Your task to perform on an android device: turn off sleep mode Image 0: 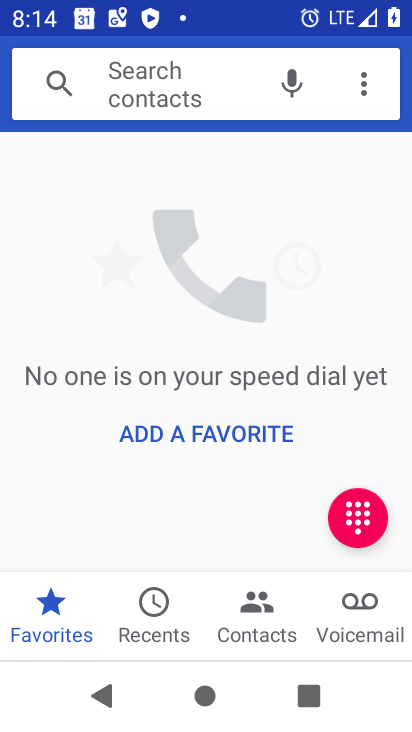
Step 0: press home button
Your task to perform on an android device: turn off sleep mode Image 1: 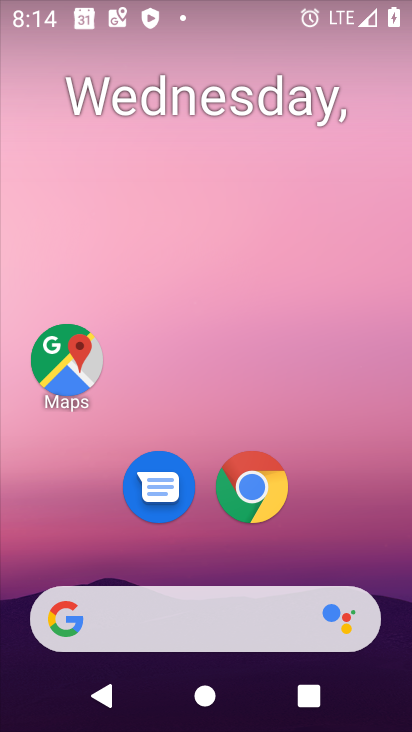
Step 1: drag from (354, 572) to (312, 4)
Your task to perform on an android device: turn off sleep mode Image 2: 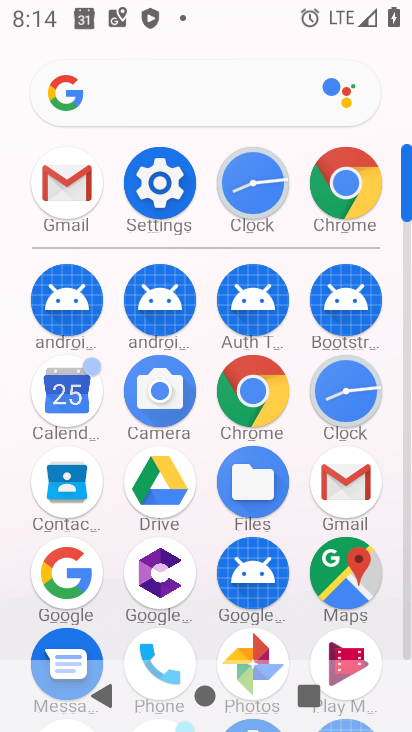
Step 2: click (154, 184)
Your task to perform on an android device: turn off sleep mode Image 3: 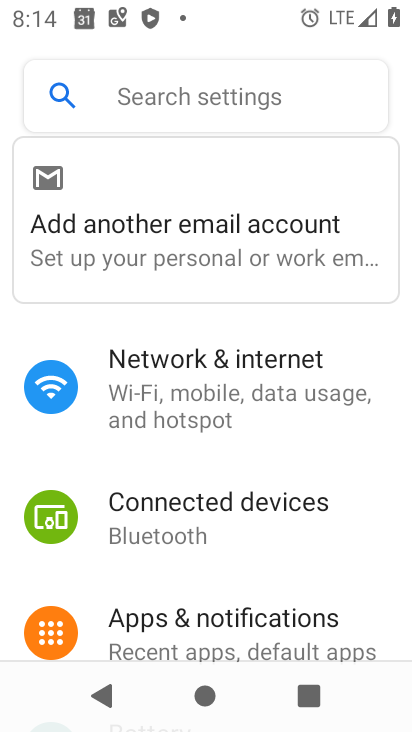
Step 3: drag from (344, 571) to (340, 98)
Your task to perform on an android device: turn off sleep mode Image 4: 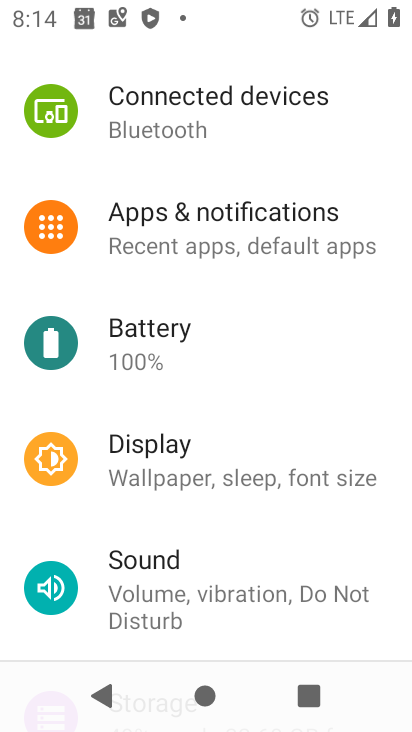
Step 4: click (148, 454)
Your task to perform on an android device: turn off sleep mode Image 5: 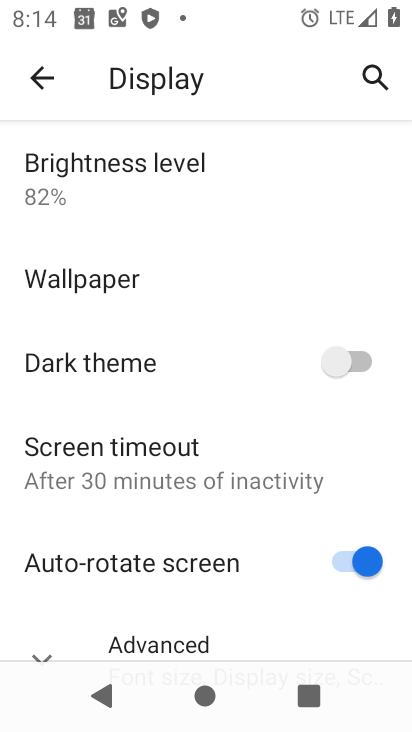
Step 5: drag from (146, 505) to (157, 231)
Your task to perform on an android device: turn off sleep mode Image 6: 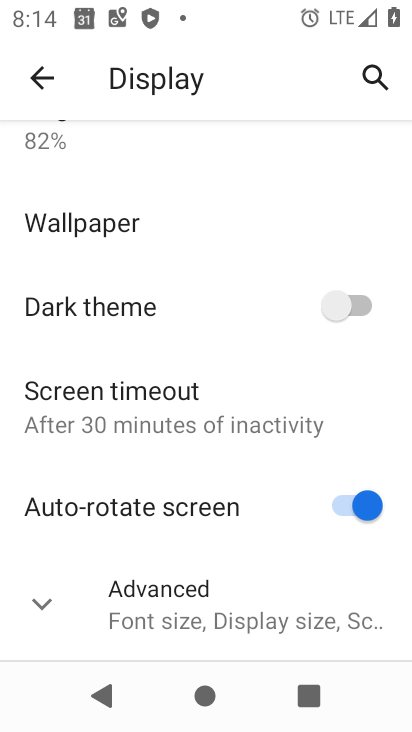
Step 6: click (35, 612)
Your task to perform on an android device: turn off sleep mode Image 7: 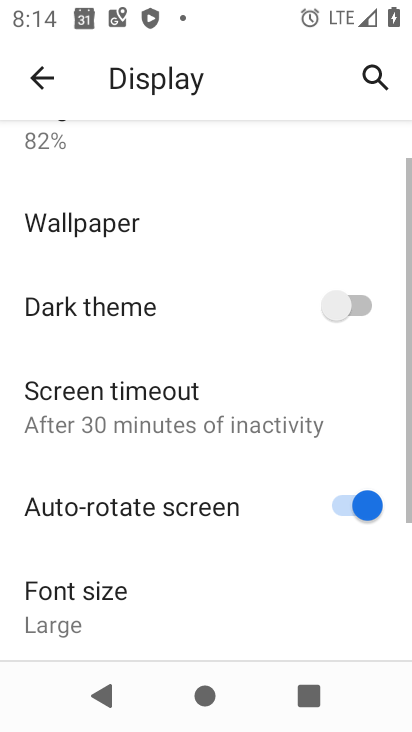
Step 7: task complete